Your task to perform on an android device: change your default location settings in chrome Image 0: 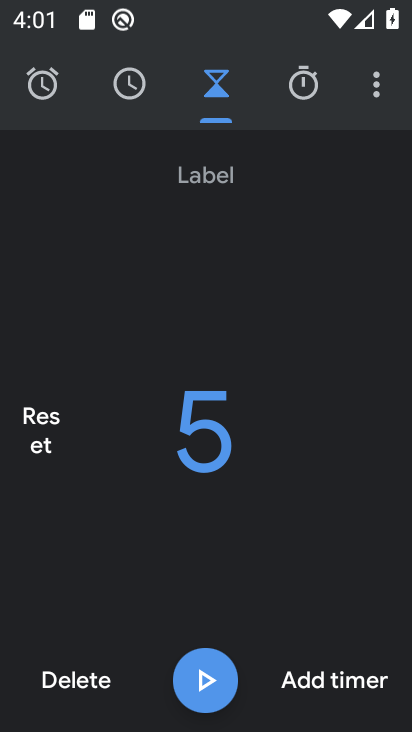
Step 0: press home button
Your task to perform on an android device: change your default location settings in chrome Image 1: 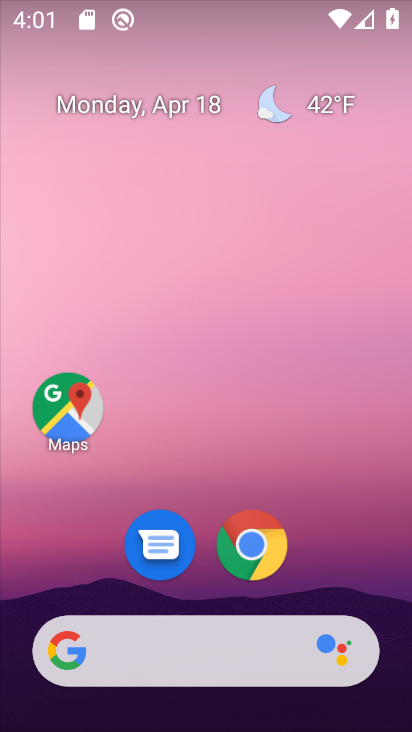
Step 1: drag from (328, 559) to (300, 135)
Your task to perform on an android device: change your default location settings in chrome Image 2: 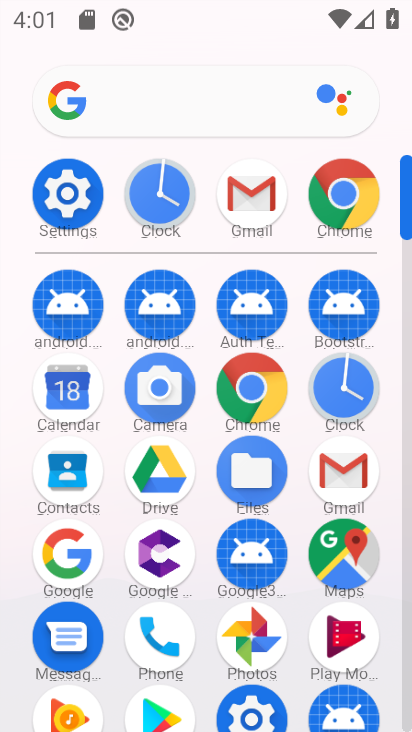
Step 2: click (267, 395)
Your task to perform on an android device: change your default location settings in chrome Image 3: 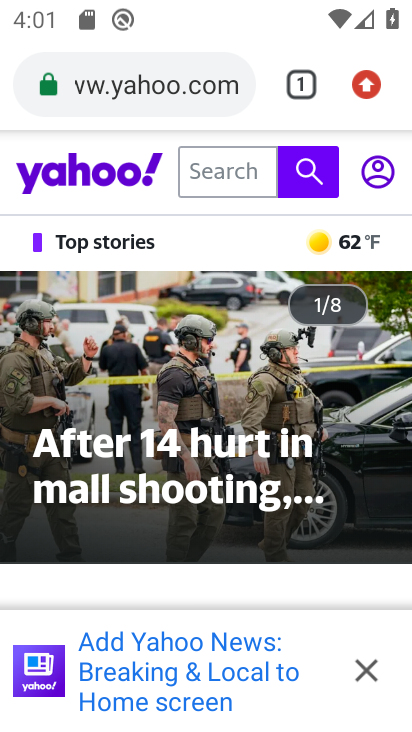
Step 3: click (373, 80)
Your task to perform on an android device: change your default location settings in chrome Image 4: 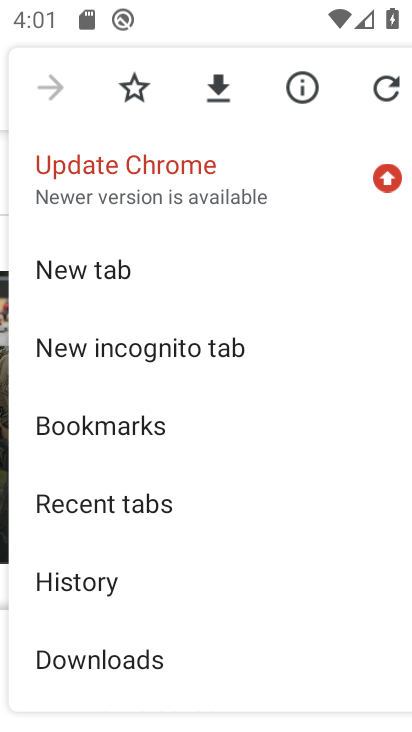
Step 4: drag from (307, 555) to (304, 404)
Your task to perform on an android device: change your default location settings in chrome Image 5: 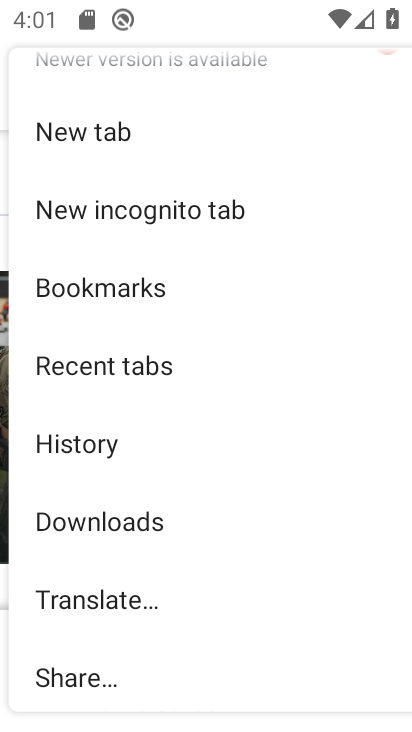
Step 5: drag from (297, 518) to (297, 400)
Your task to perform on an android device: change your default location settings in chrome Image 6: 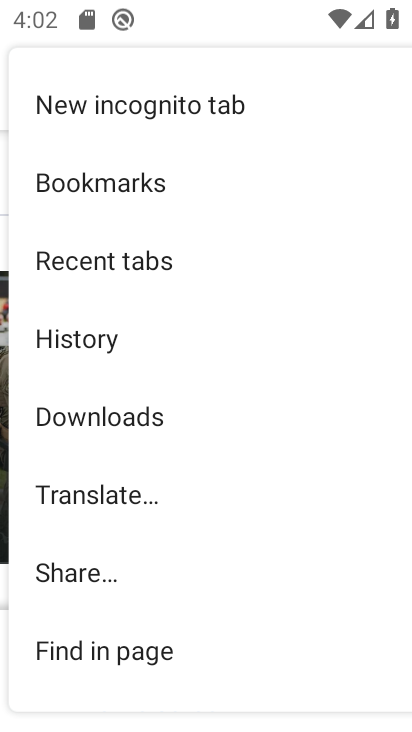
Step 6: drag from (280, 565) to (295, 378)
Your task to perform on an android device: change your default location settings in chrome Image 7: 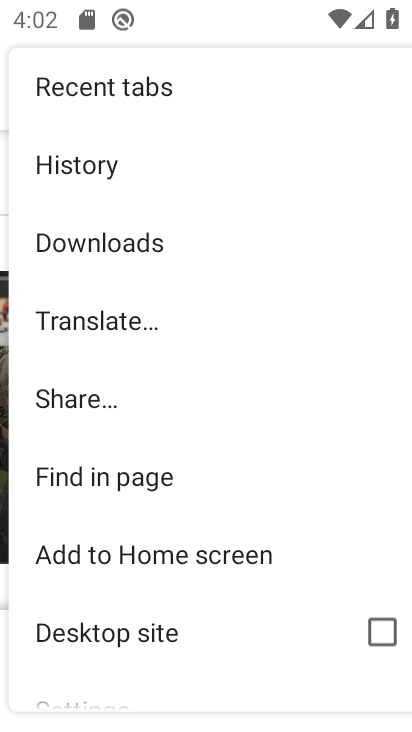
Step 7: drag from (274, 550) to (285, 365)
Your task to perform on an android device: change your default location settings in chrome Image 8: 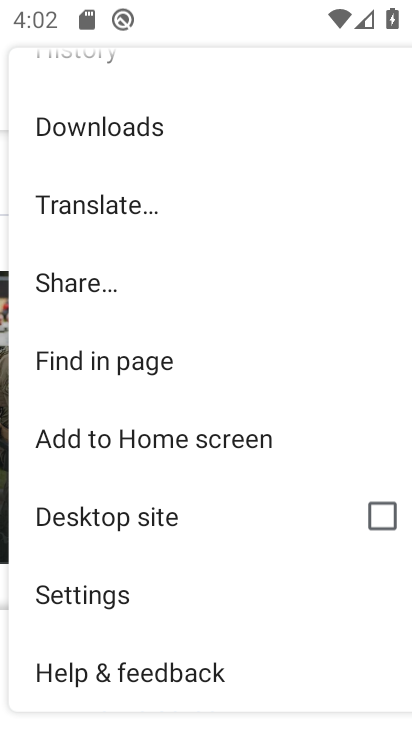
Step 8: click (120, 595)
Your task to perform on an android device: change your default location settings in chrome Image 9: 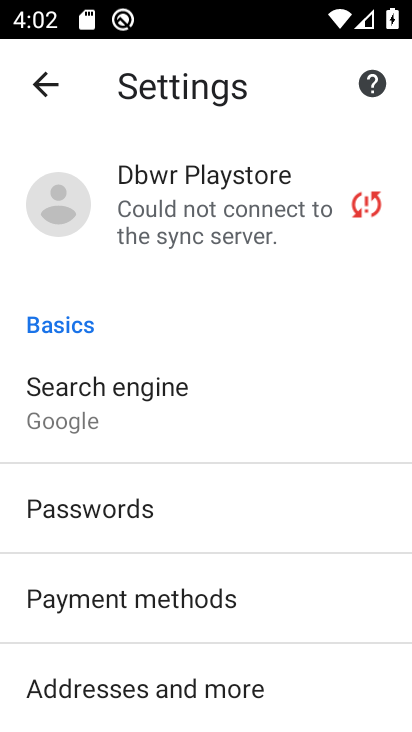
Step 9: drag from (333, 629) to (330, 497)
Your task to perform on an android device: change your default location settings in chrome Image 10: 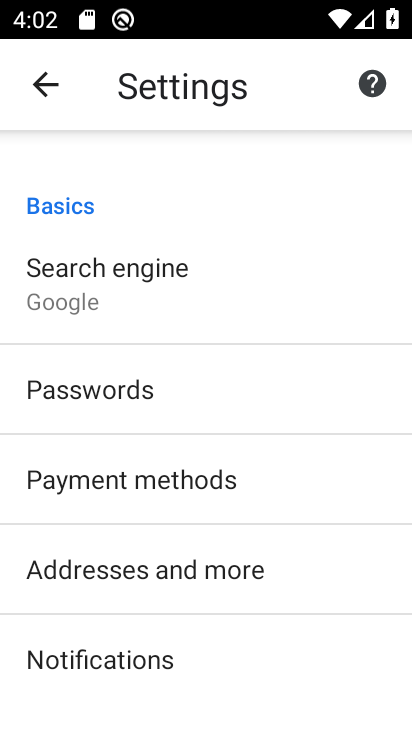
Step 10: drag from (330, 521) to (332, 417)
Your task to perform on an android device: change your default location settings in chrome Image 11: 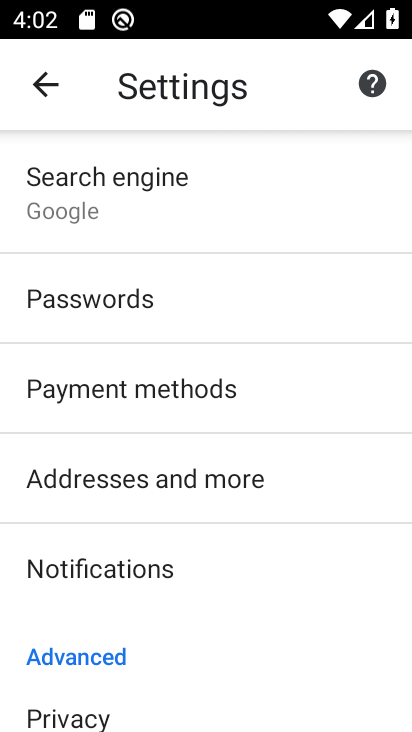
Step 11: drag from (329, 630) to (322, 444)
Your task to perform on an android device: change your default location settings in chrome Image 12: 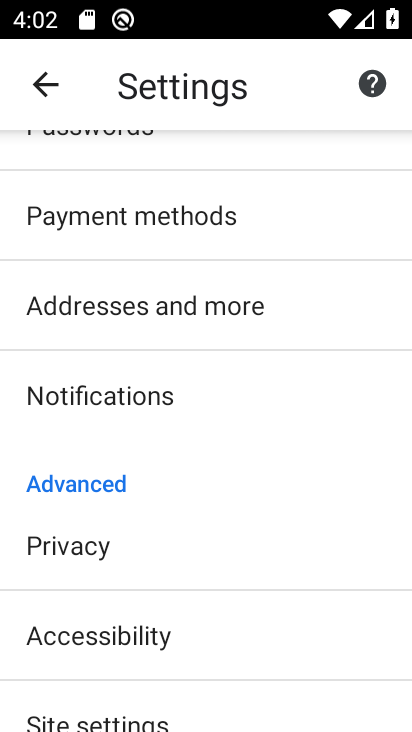
Step 12: drag from (323, 632) to (321, 456)
Your task to perform on an android device: change your default location settings in chrome Image 13: 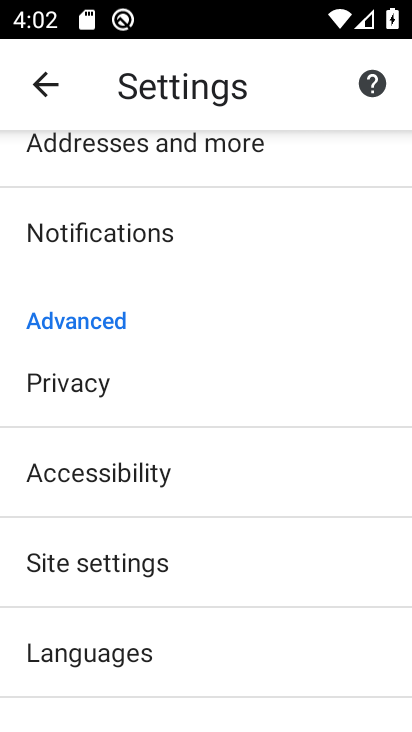
Step 13: drag from (299, 638) to (281, 482)
Your task to perform on an android device: change your default location settings in chrome Image 14: 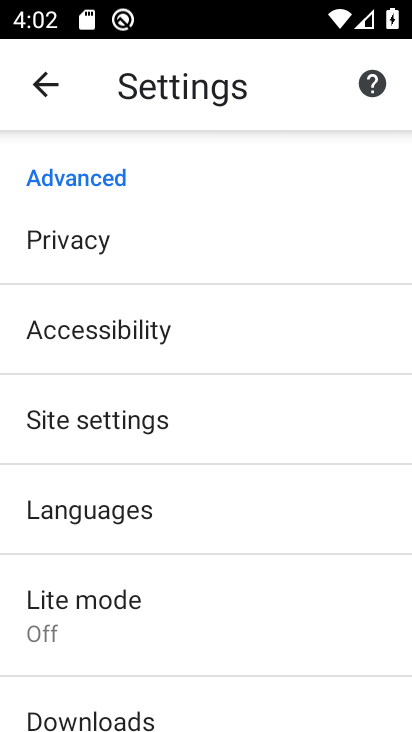
Step 14: click (239, 429)
Your task to perform on an android device: change your default location settings in chrome Image 15: 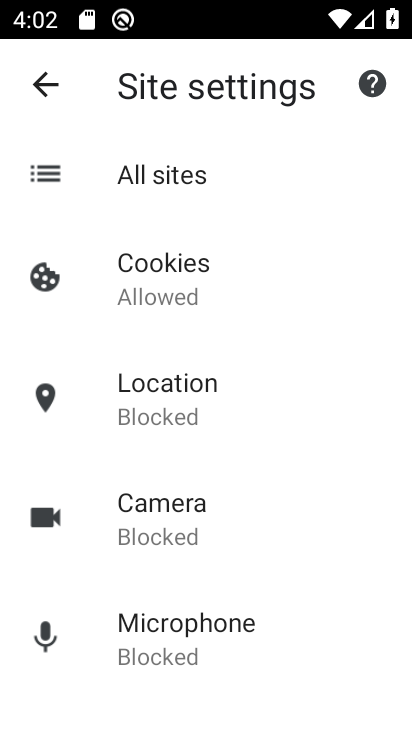
Step 15: click (191, 392)
Your task to perform on an android device: change your default location settings in chrome Image 16: 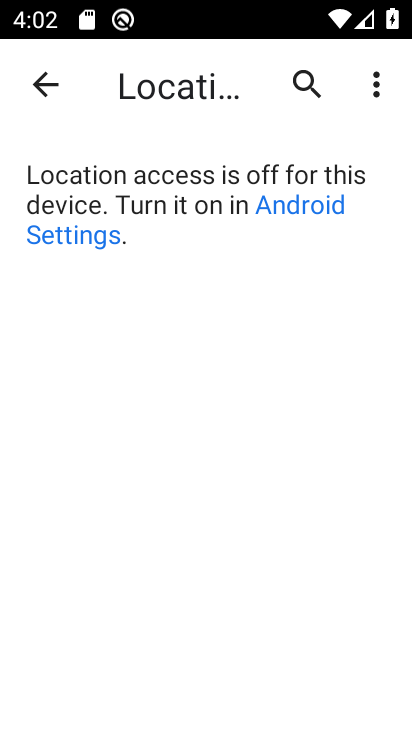
Step 16: click (87, 236)
Your task to perform on an android device: change your default location settings in chrome Image 17: 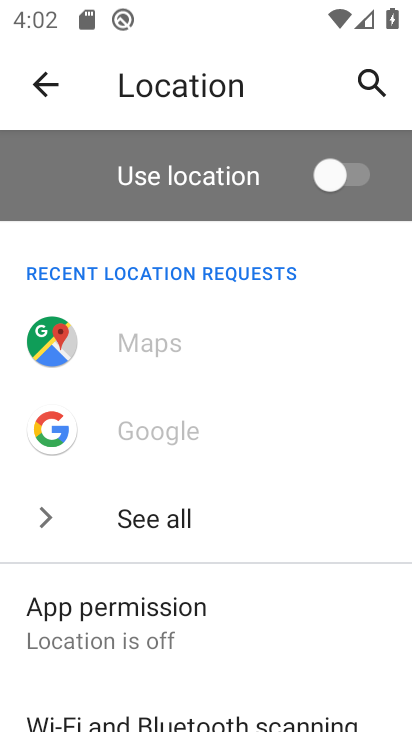
Step 17: click (324, 174)
Your task to perform on an android device: change your default location settings in chrome Image 18: 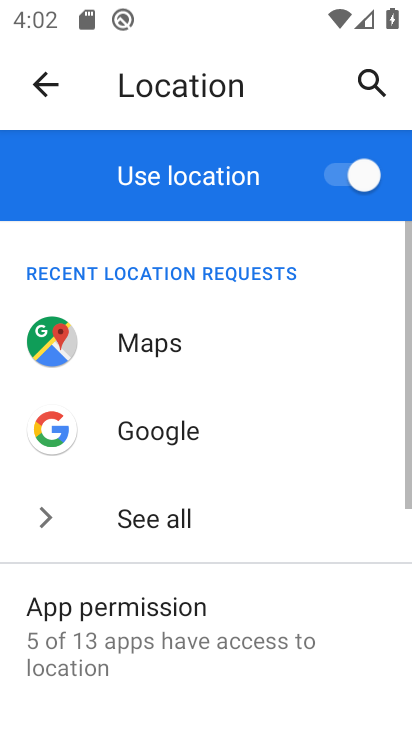
Step 18: task complete